Your task to perform on an android device: star an email in the gmail app Image 0: 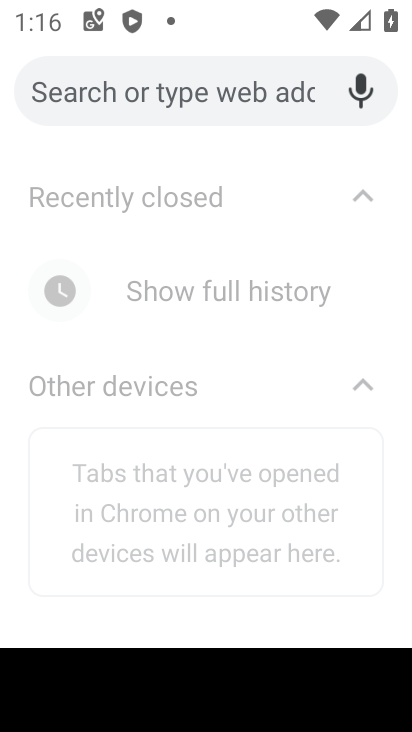
Step 0: press home button
Your task to perform on an android device: star an email in the gmail app Image 1: 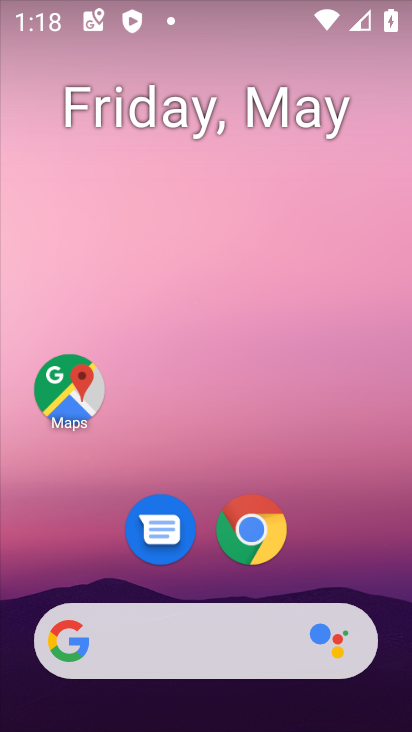
Step 1: drag from (373, 586) to (278, 143)
Your task to perform on an android device: star an email in the gmail app Image 2: 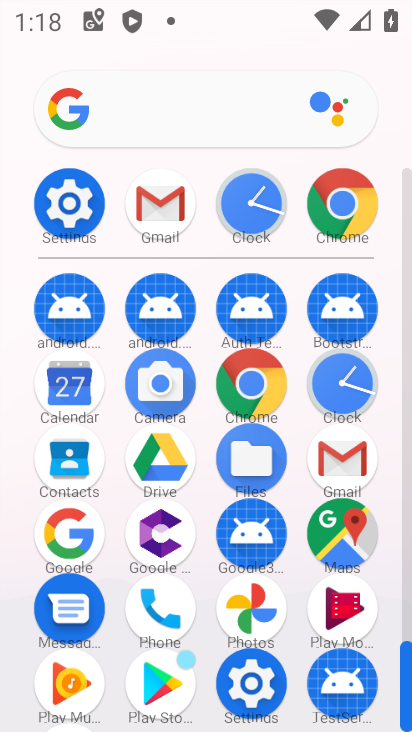
Step 2: click (143, 204)
Your task to perform on an android device: star an email in the gmail app Image 3: 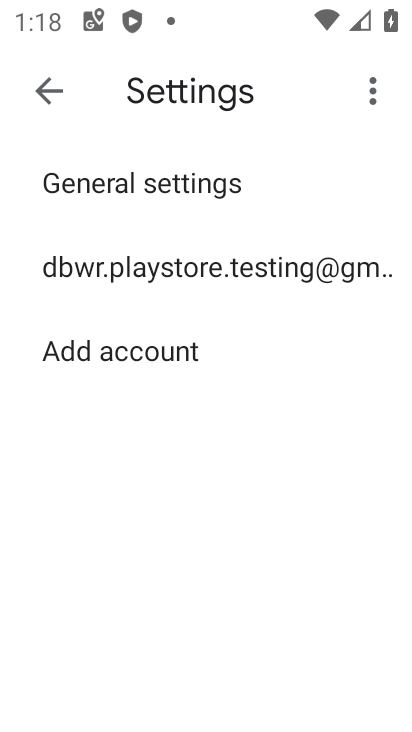
Step 3: click (47, 122)
Your task to perform on an android device: star an email in the gmail app Image 4: 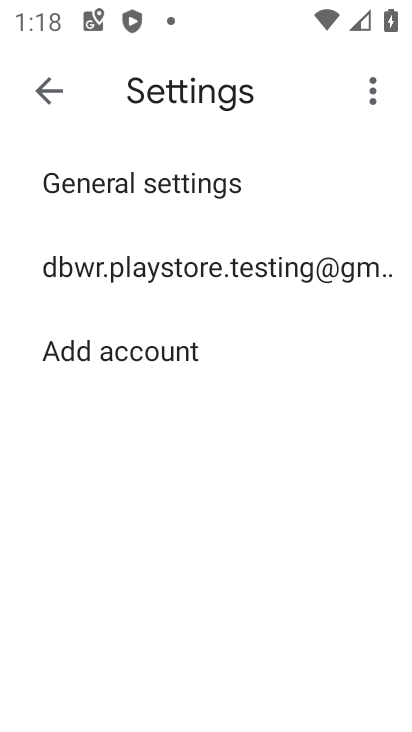
Step 4: click (47, 122)
Your task to perform on an android device: star an email in the gmail app Image 5: 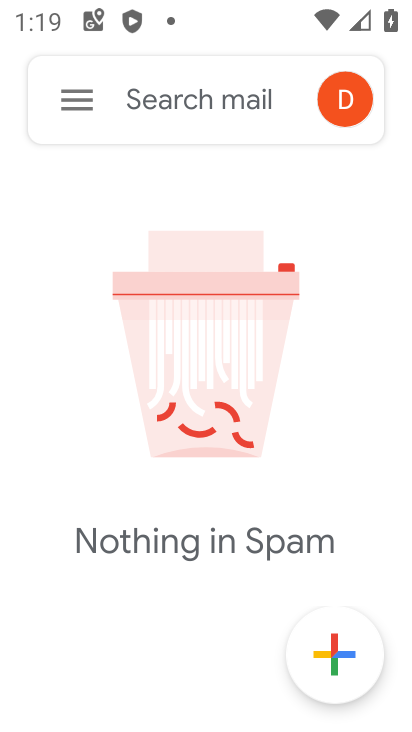
Step 5: click (98, 87)
Your task to perform on an android device: star an email in the gmail app Image 6: 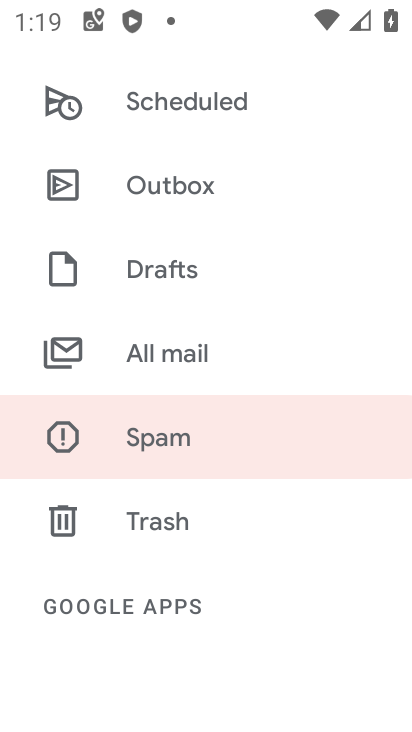
Step 6: drag from (148, 235) to (122, 662)
Your task to perform on an android device: star an email in the gmail app Image 7: 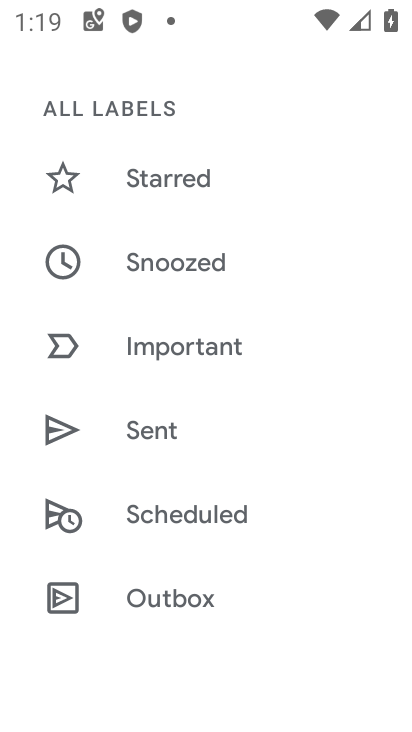
Step 7: drag from (151, 222) to (118, 709)
Your task to perform on an android device: star an email in the gmail app Image 8: 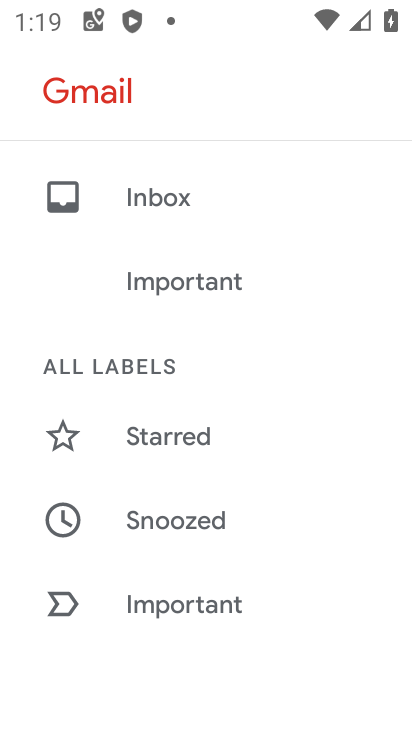
Step 8: click (248, 424)
Your task to perform on an android device: star an email in the gmail app Image 9: 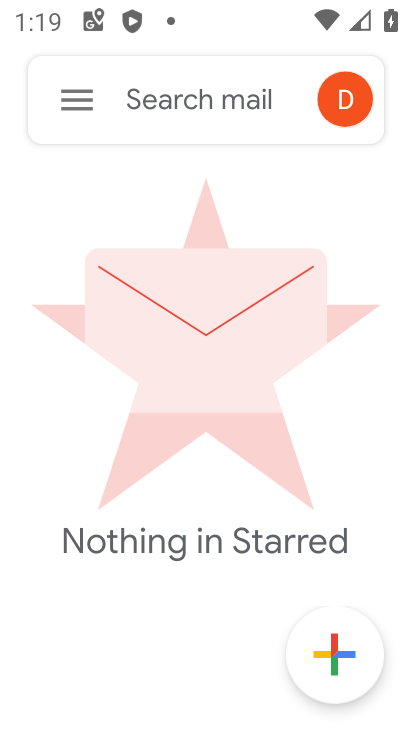
Step 9: task complete